Your task to perform on an android device: Go to Reddit.com Image 0: 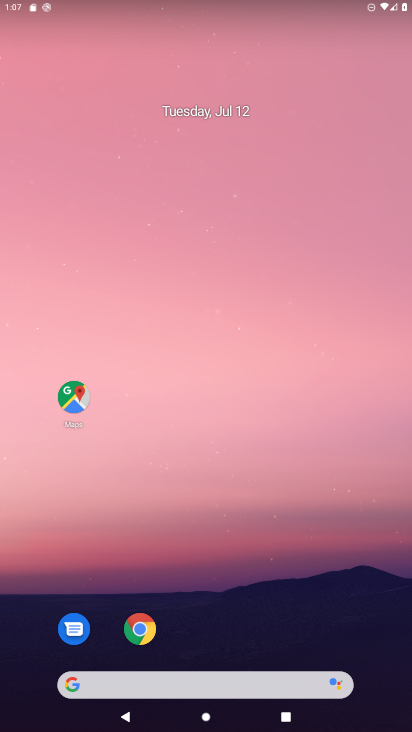
Step 0: press home button
Your task to perform on an android device: Go to Reddit.com Image 1: 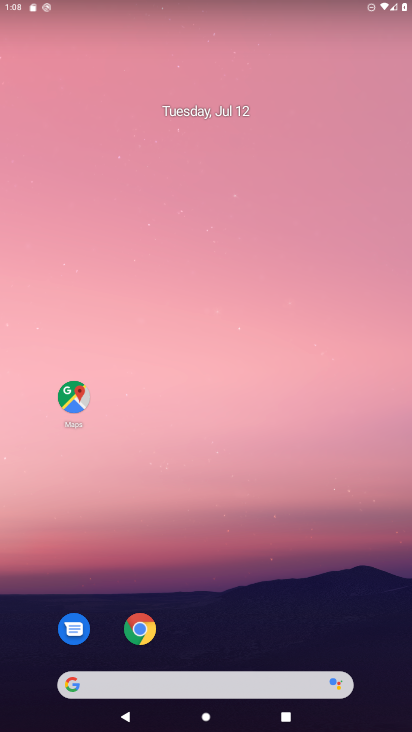
Step 1: click (137, 621)
Your task to perform on an android device: Go to Reddit.com Image 2: 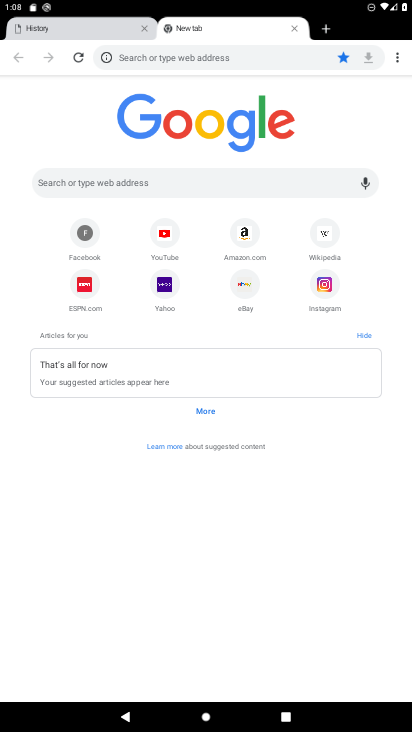
Step 2: click (154, 179)
Your task to perform on an android device: Go to Reddit.com Image 3: 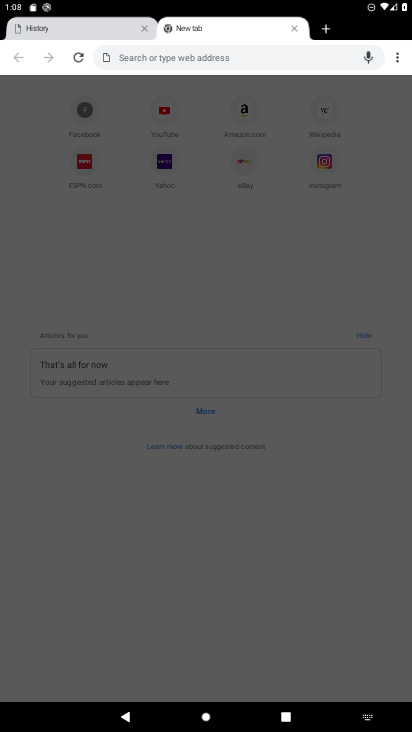
Step 3: type "reddit"
Your task to perform on an android device: Go to Reddit.com Image 4: 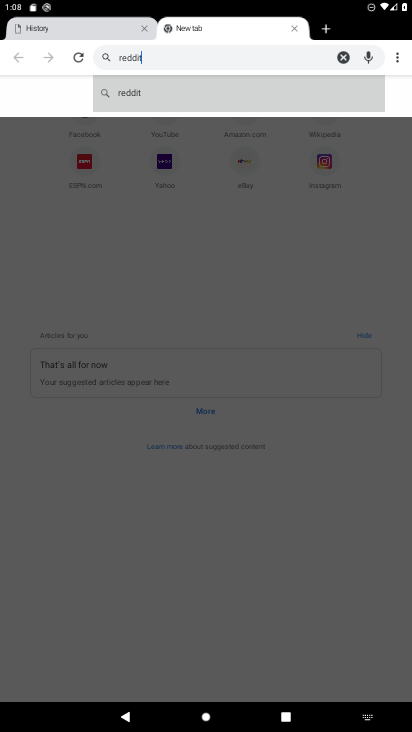
Step 4: type ""
Your task to perform on an android device: Go to Reddit.com Image 5: 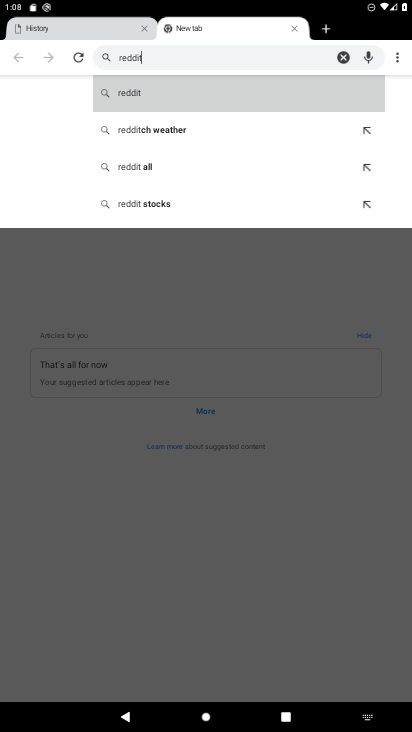
Step 5: click (134, 94)
Your task to perform on an android device: Go to Reddit.com Image 6: 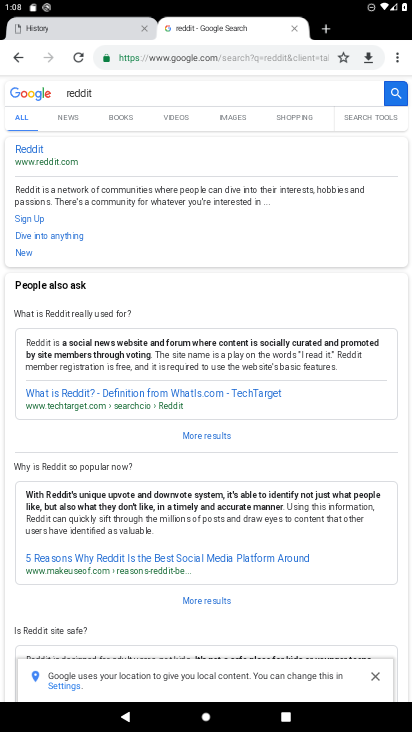
Step 6: click (30, 146)
Your task to perform on an android device: Go to Reddit.com Image 7: 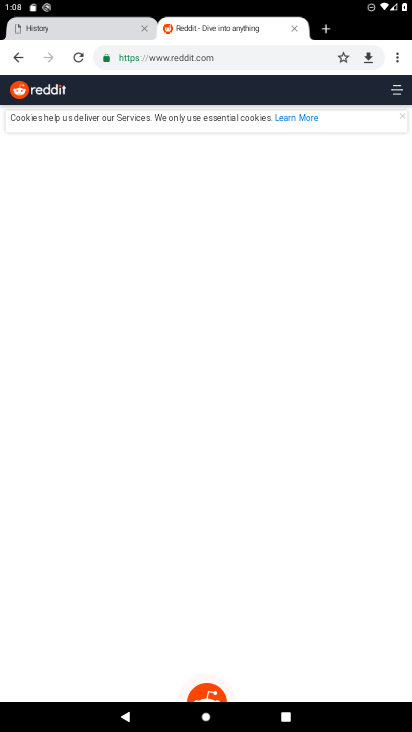
Step 7: press home button
Your task to perform on an android device: Go to Reddit.com Image 8: 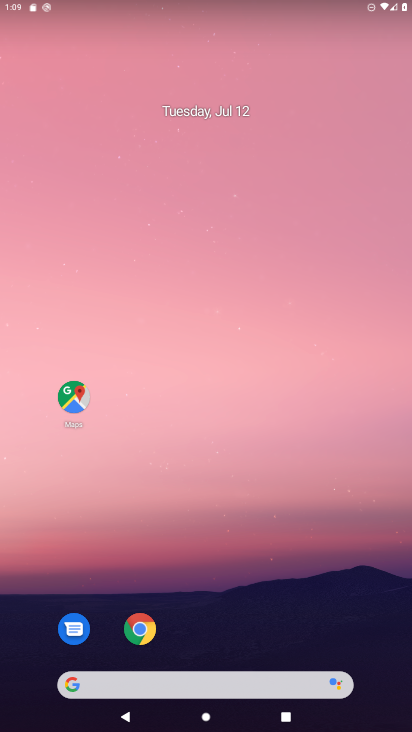
Step 8: click (139, 624)
Your task to perform on an android device: Go to Reddit.com Image 9: 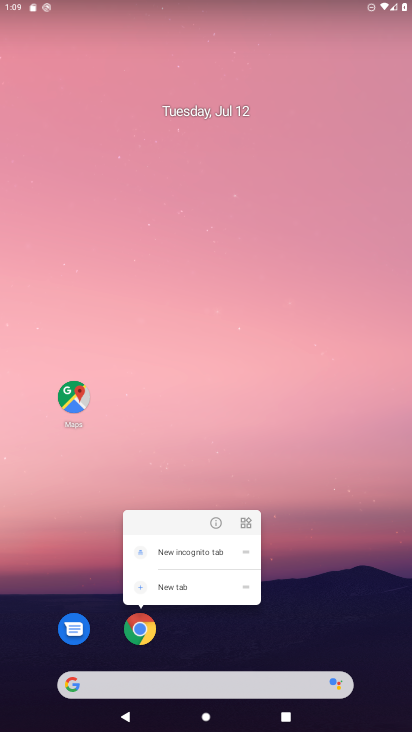
Step 9: click (136, 626)
Your task to perform on an android device: Go to Reddit.com Image 10: 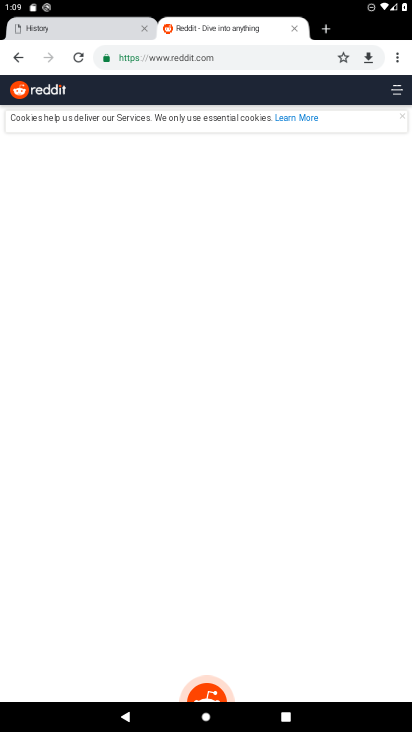
Step 10: task complete